Your task to perform on an android device: turn off location history Image 0: 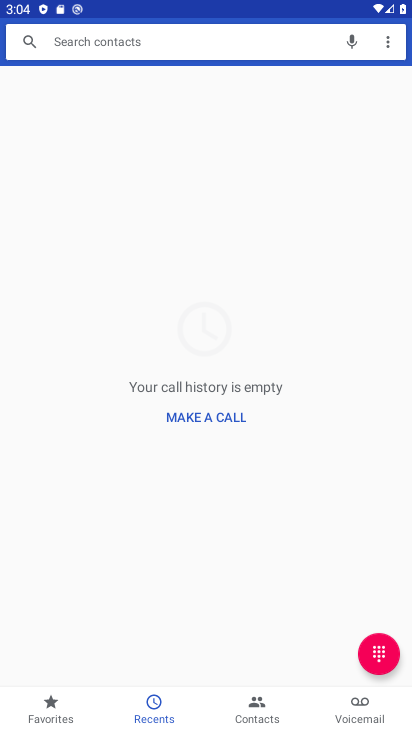
Step 0: press home button
Your task to perform on an android device: turn off location history Image 1: 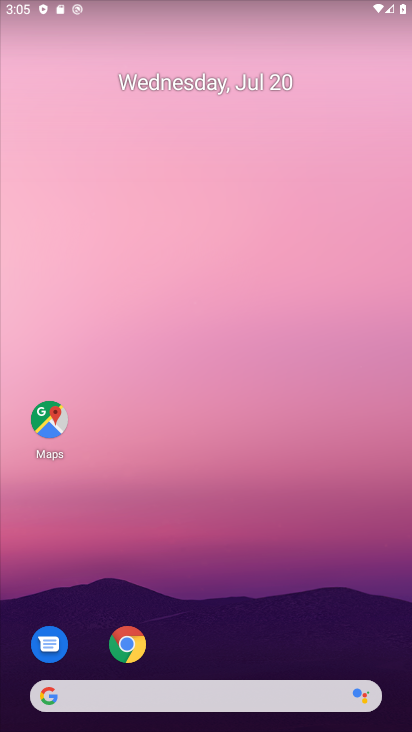
Step 1: drag from (71, 635) to (357, 13)
Your task to perform on an android device: turn off location history Image 2: 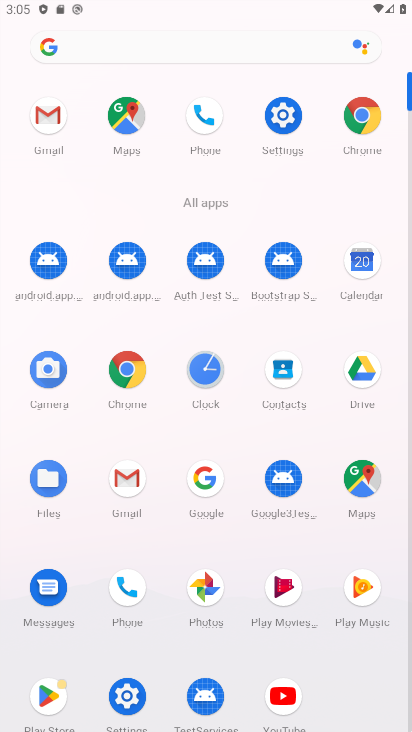
Step 2: click (116, 698)
Your task to perform on an android device: turn off location history Image 3: 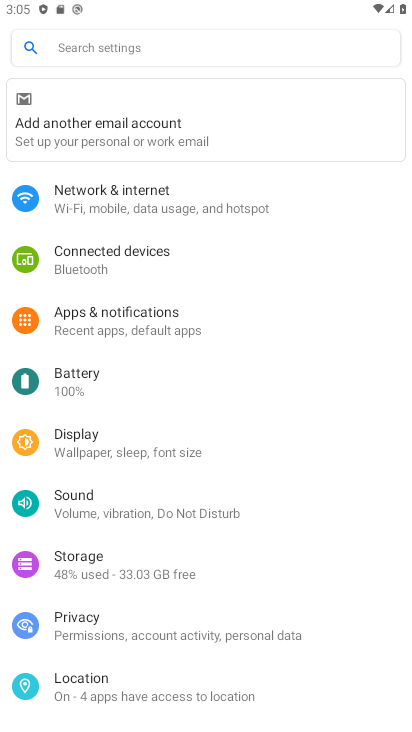
Step 3: click (118, 694)
Your task to perform on an android device: turn off location history Image 4: 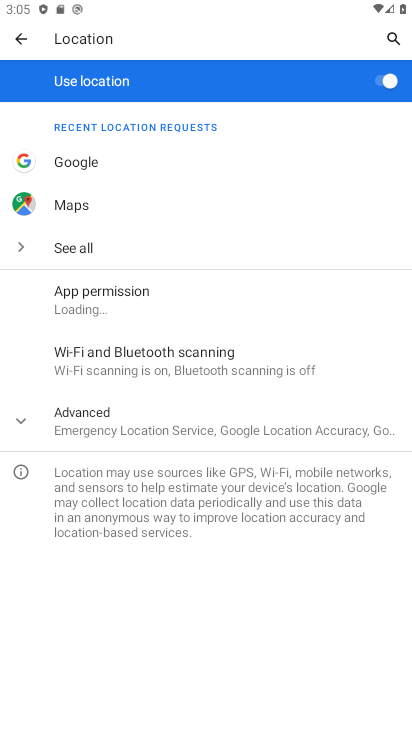
Step 4: click (105, 434)
Your task to perform on an android device: turn off location history Image 5: 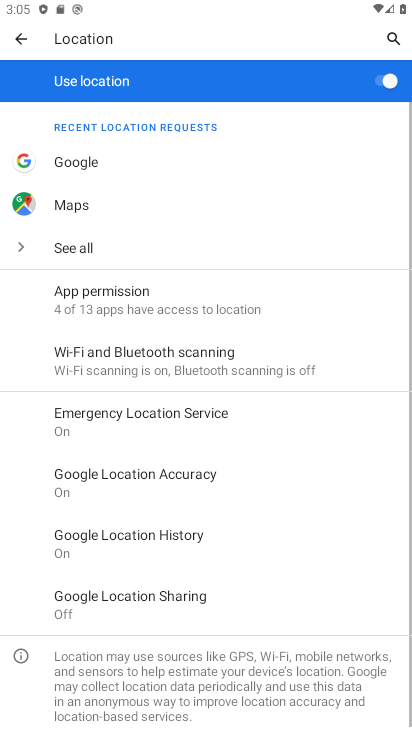
Step 5: click (109, 547)
Your task to perform on an android device: turn off location history Image 6: 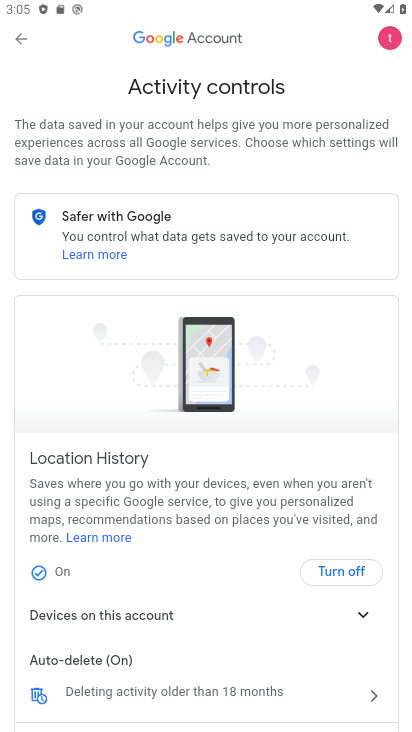
Step 6: click (349, 583)
Your task to perform on an android device: turn off location history Image 7: 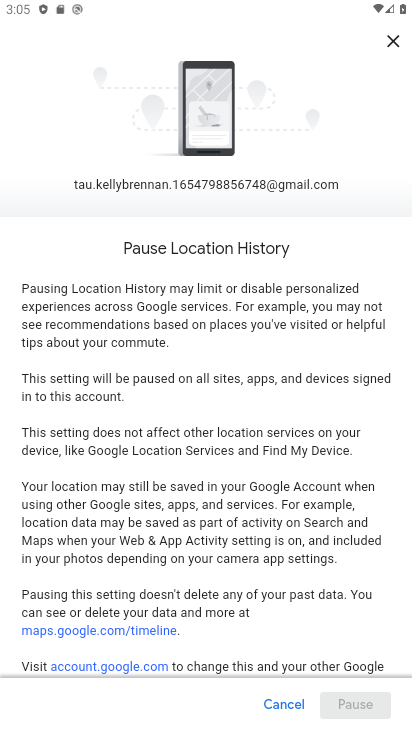
Step 7: click (377, 704)
Your task to perform on an android device: turn off location history Image 8: 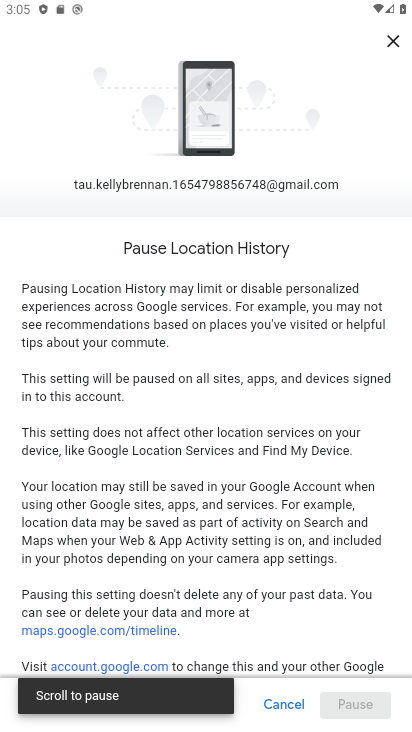
Step 8: task complete